Your task to perform on an android device: Go to wifi settings Image 0: 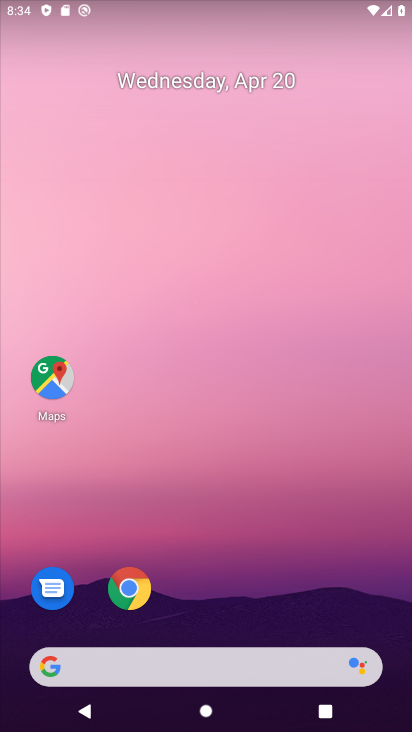
Step 0: drag from (182, 577) to (183, 72)
Your task to perform on an android device: Go to wifi settings Image 1: 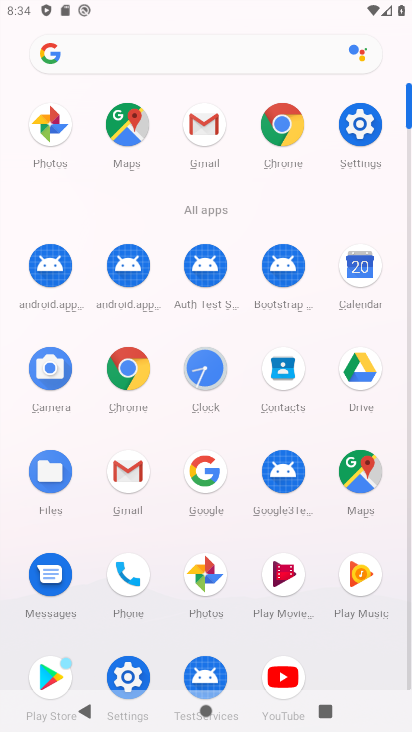
Step 1: click (368, 131)
Your task to perform on an android device: Go to wifi settings Image 2: 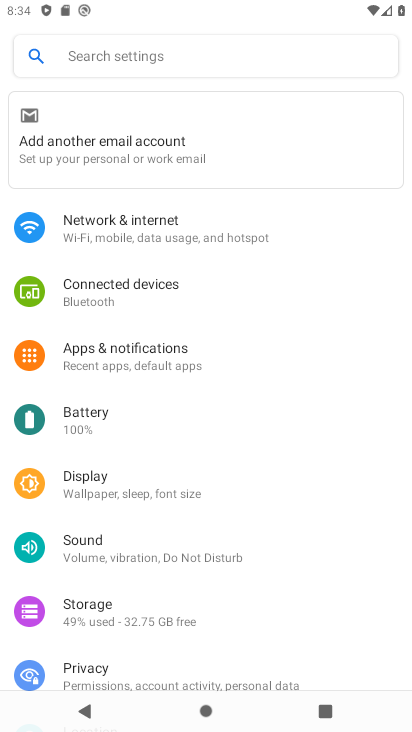
Step 2: click (172, 226)
Your task to perform on an android device: Go to wifi settings Image 3: 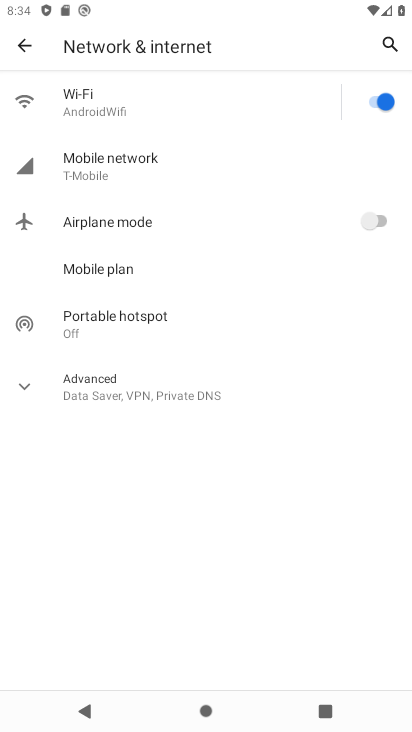
Step 3: click (119, 110)
Your task to perform on an android device: Go to wifi settings Image 4: 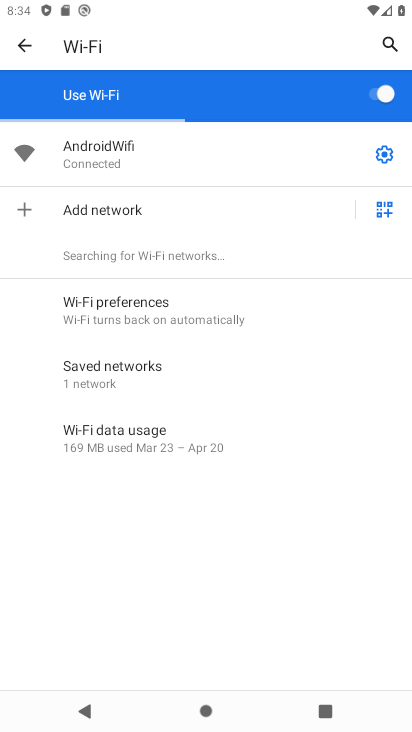
Step 4: task complete